Your task to perform on an android device: Open notification settings Image 0: 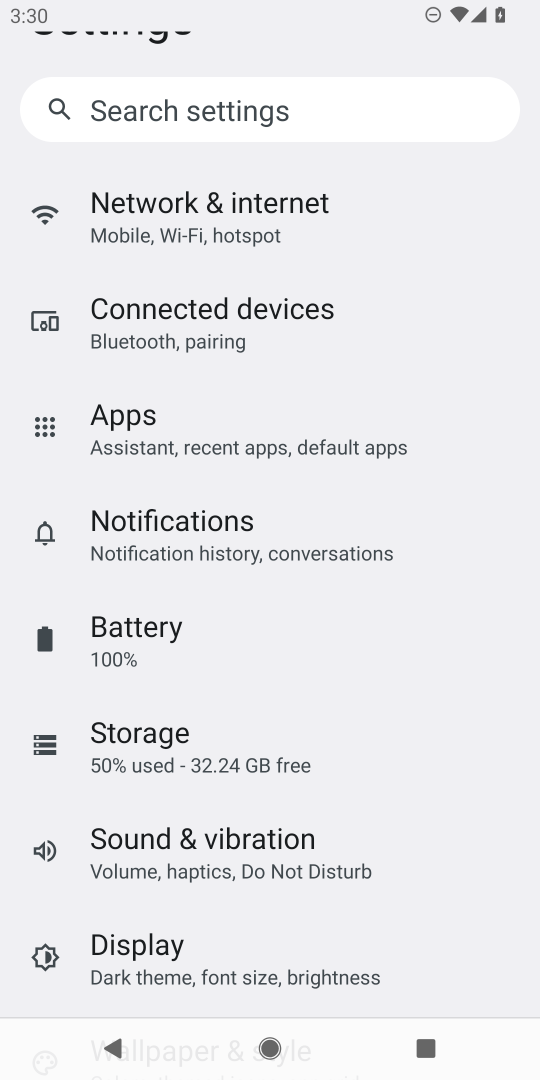
Step 0: click (307, 532)
Your task to perform on an android device: Open notification settings Image 1: 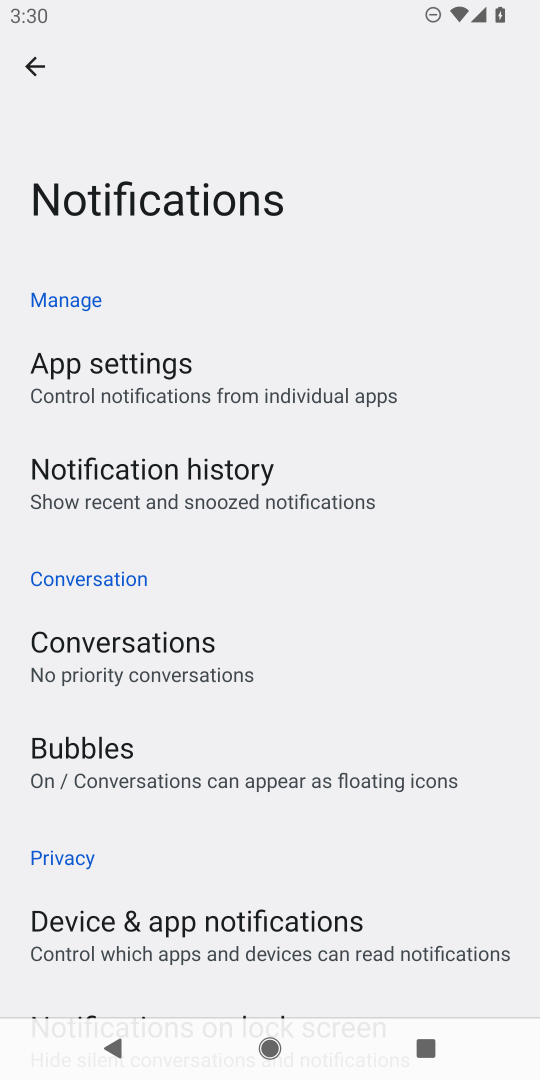
Step 1: task complete